Your task to perform on an android device: Open display settings Image 0: 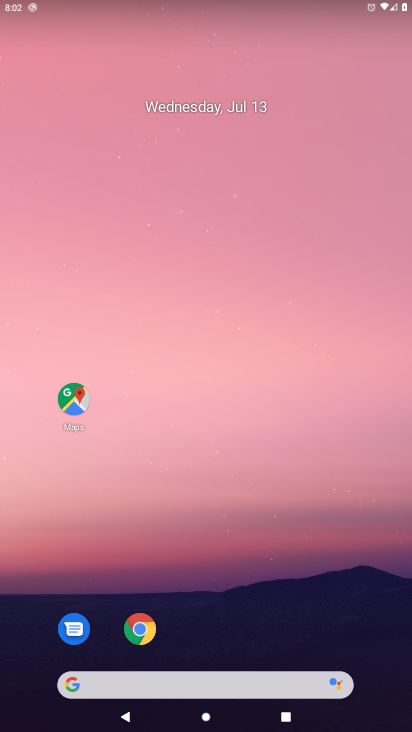
Step 0: click (126, 677)
Your task to perform on an android device: Open display settings Image 1: 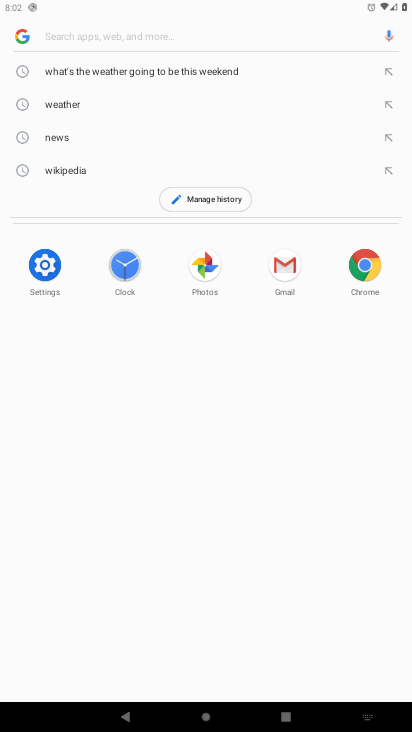
Step 1: press home button
Your task to perform on an android device: Open display settings Image 2: 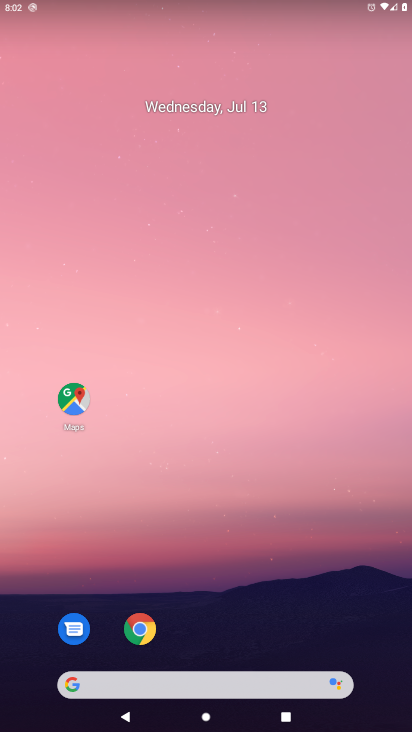
Step 2: drag from (9, 700) to (207, 55)
Your task to perform on an android device: Open display settings Image 3: 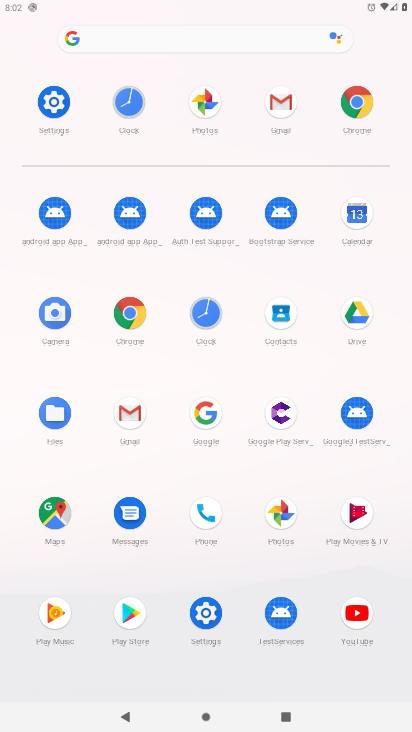
Step 3: click (213, 622)
Your task to perform on an android device: Open display settings Image 4: 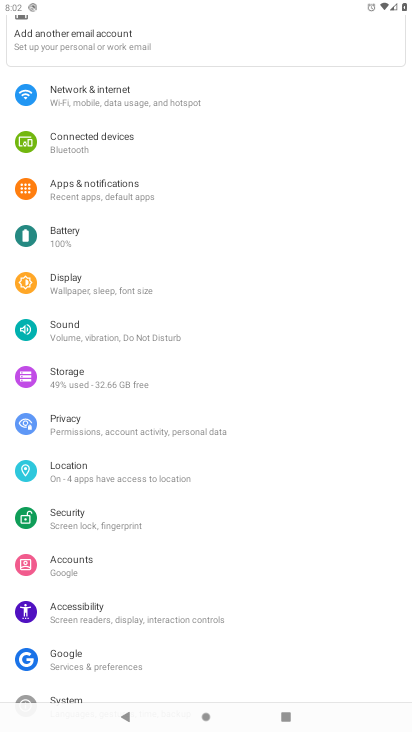
Step 4: click (90, 285)
Your task to perform on an android device: Open display settings Image 5: 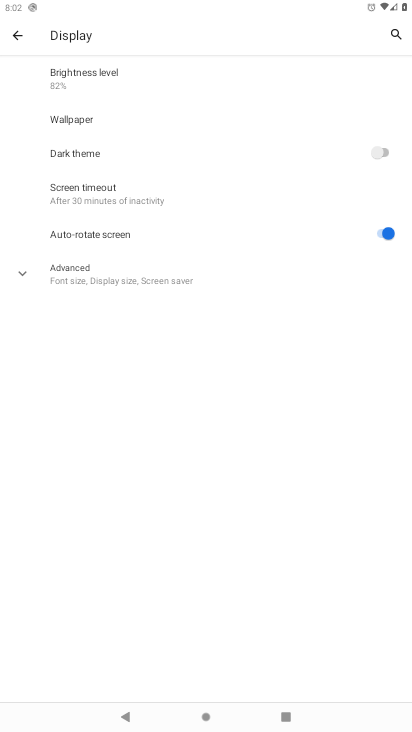
Step 5: task complete